Your task to perform on an android device: turn off location Image 0: 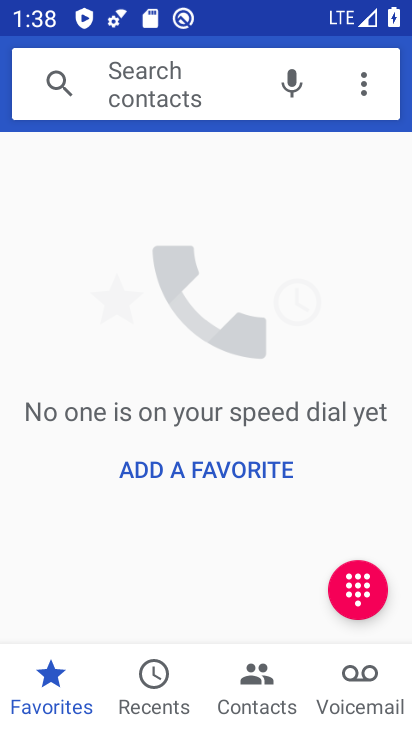
Step 0: press home button
Your task to perform on an android device: turn off location Image 1: 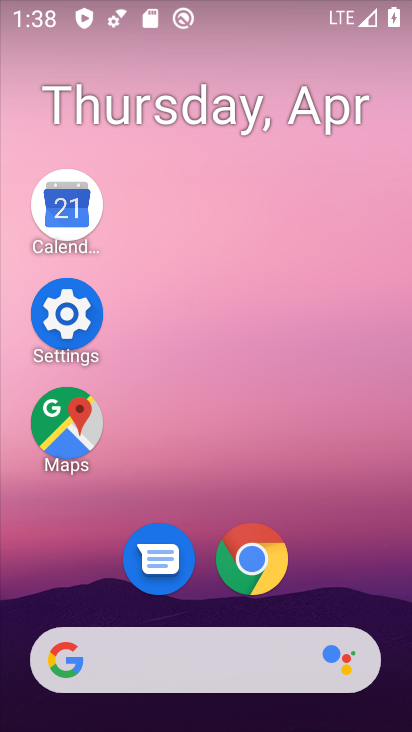
Step 1: click (84, 318)
Your task to perform on an android device: turn off location Image 2: 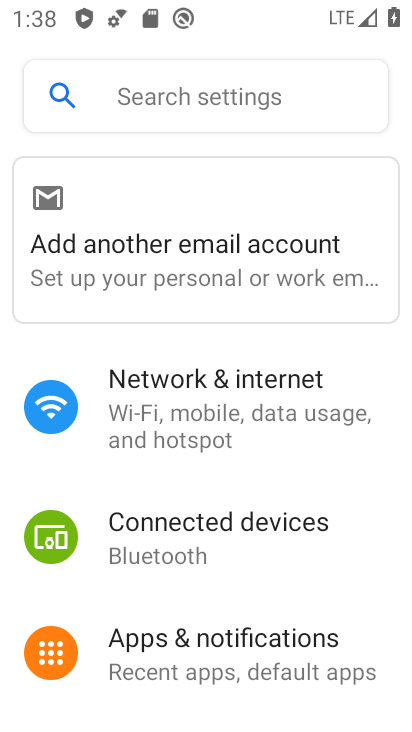
Step 2: drag from (223, 641) to (268, 90)
Your task to perform on an android device: turn off location Image 3: 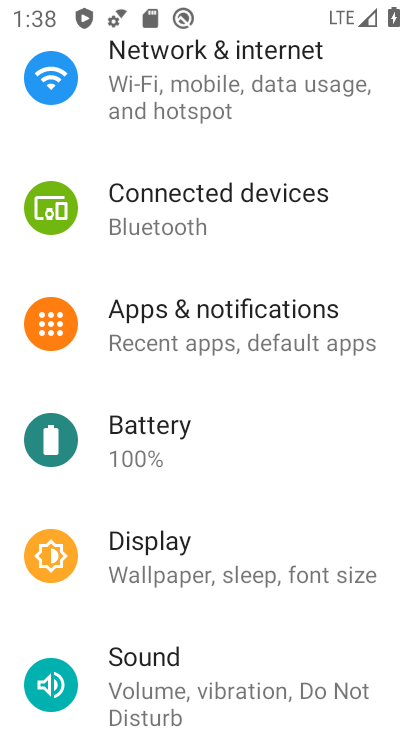
Step 3: drag from (218, 558) to (288, 125)
Your task to perform on an android device: turn off location Image 4: 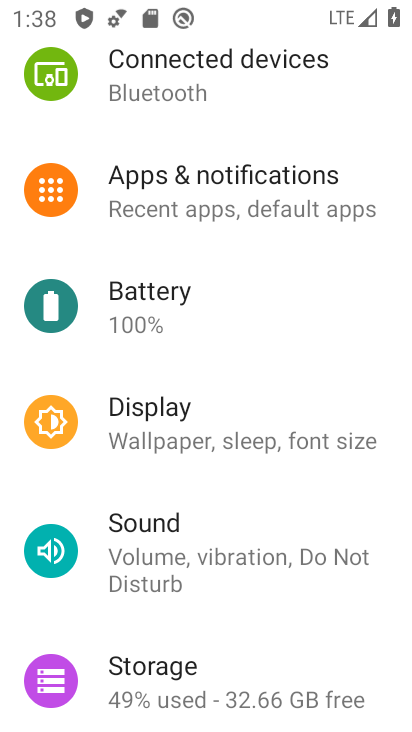
Step 4: drag from (275, 651) to (342, 51)
Your task to perform on an android device: turn off location Image 5: 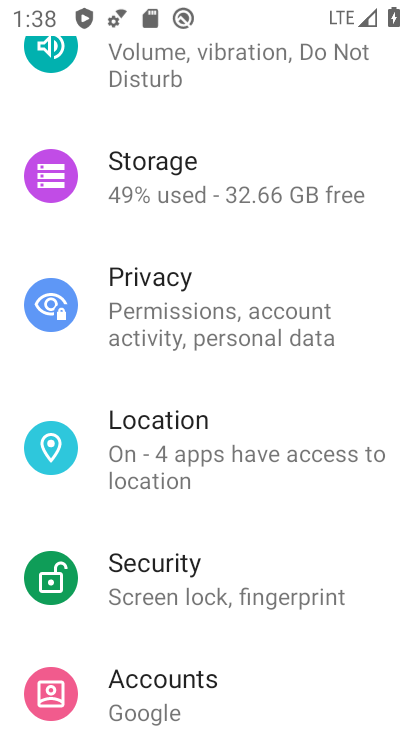
Step 5: click (206, 423)
Your task to perform on an android device: turn off location Image 6: 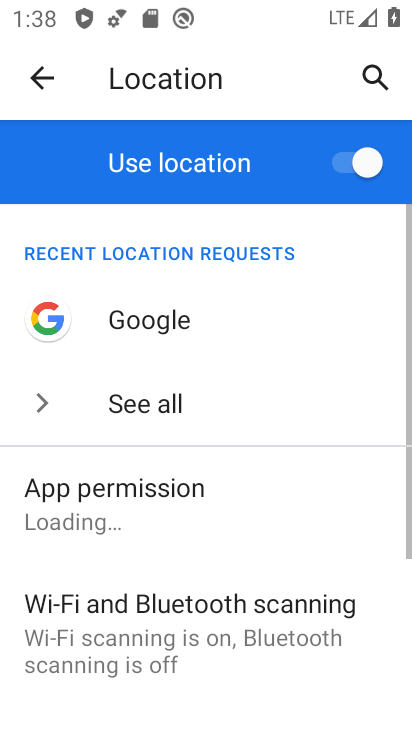
Step 6: click (348, 167)
Your task to perform on an android device: turn off location Image 7: 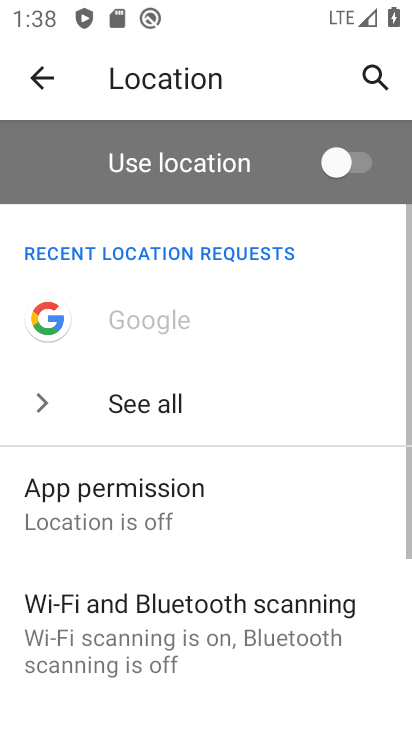
Step 7: task complete